Your task to perform on an android device: uninstall "WhatsApp Messenger" Image 0: 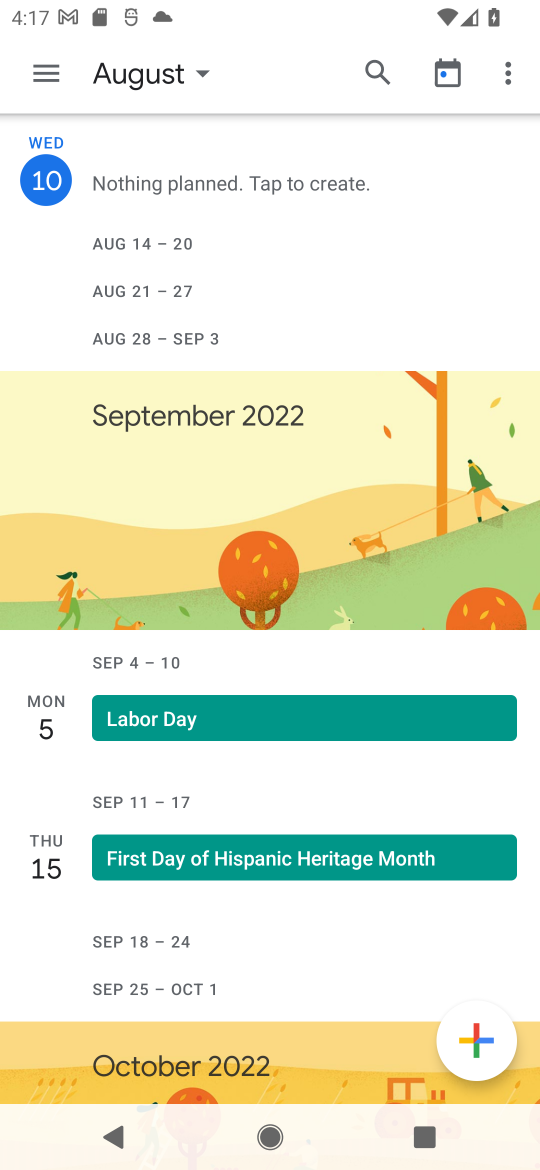
Step 0: press back button
Your task to perform on an android device: uninstall "WhatsApp Messenger" Image 1: 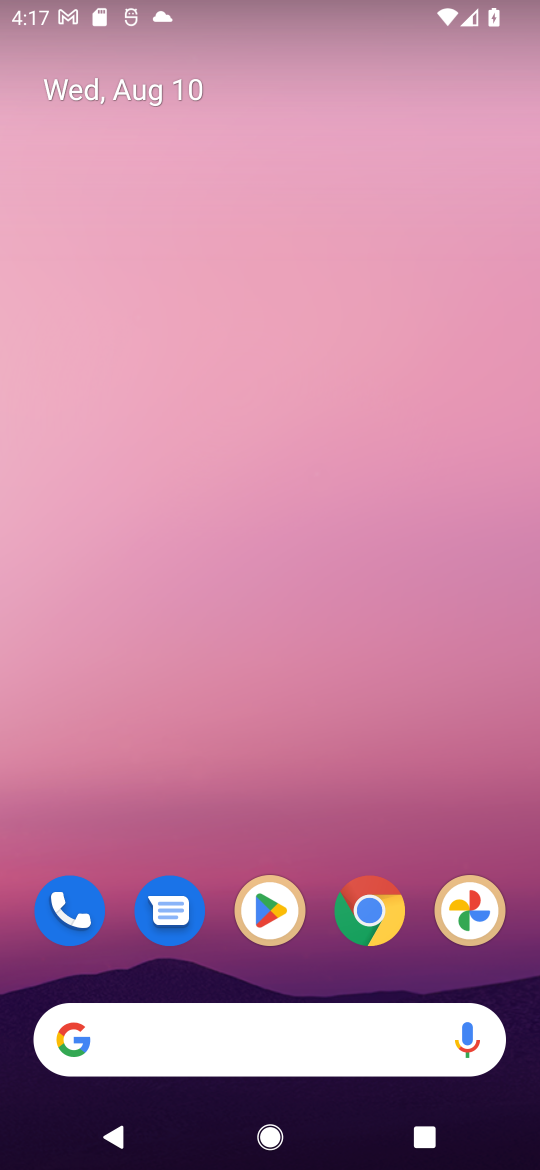
Step 1: click (253, 915)
Your task to perform on an android device: uninstall "WhatsApp Messenger" Image 2: 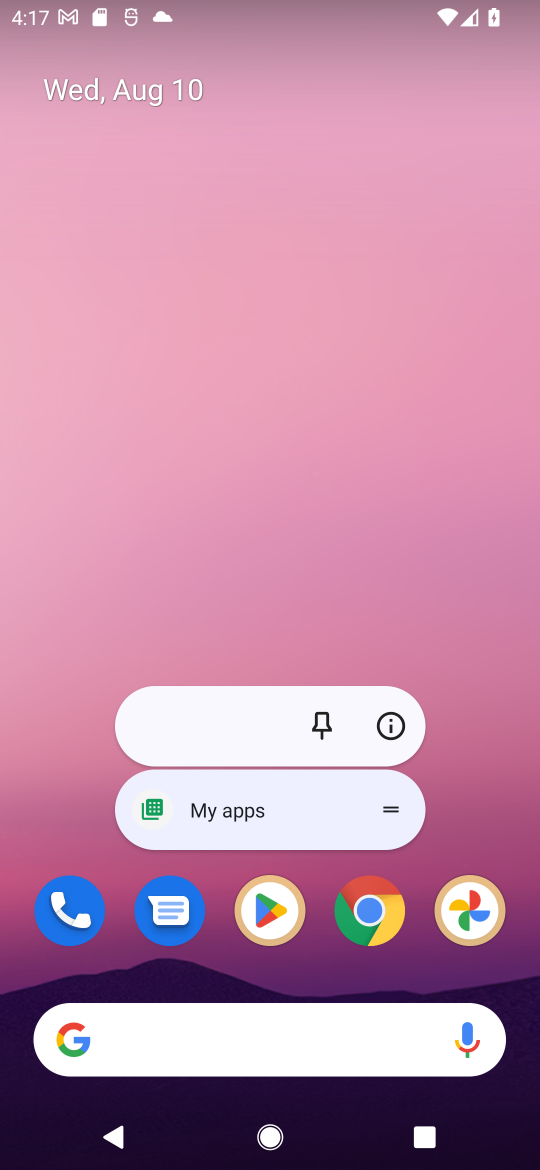
Step 2: click (284, 892)
Your task to perform on an android device: uninstall "WhatsApp Messenger" Image 3: 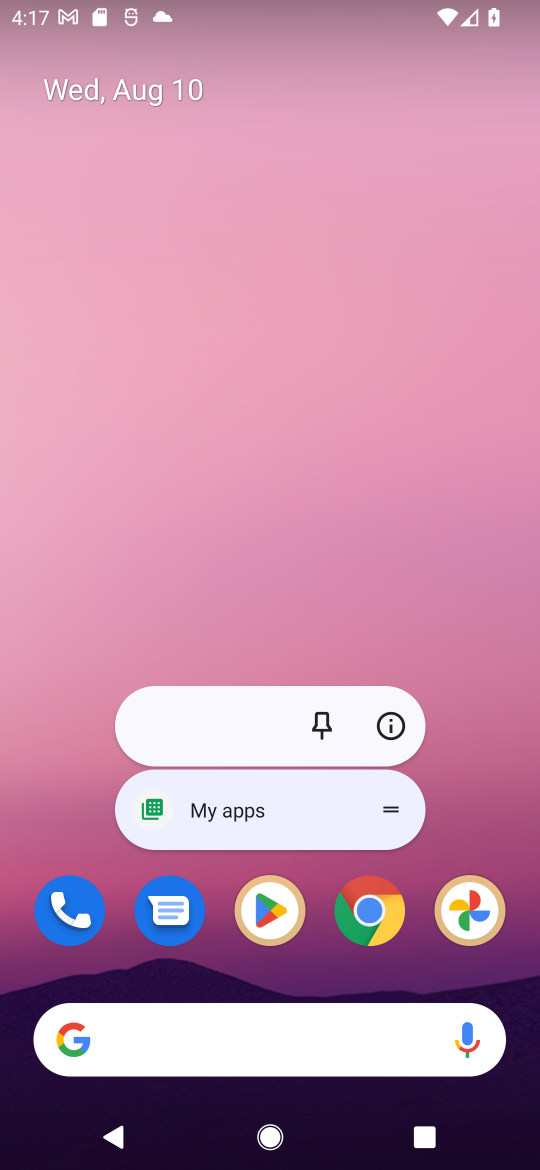
Step 3: click (278, 892)
Your task to perform on an android device: uninstall "WhatsApp Messenger" Image 4: 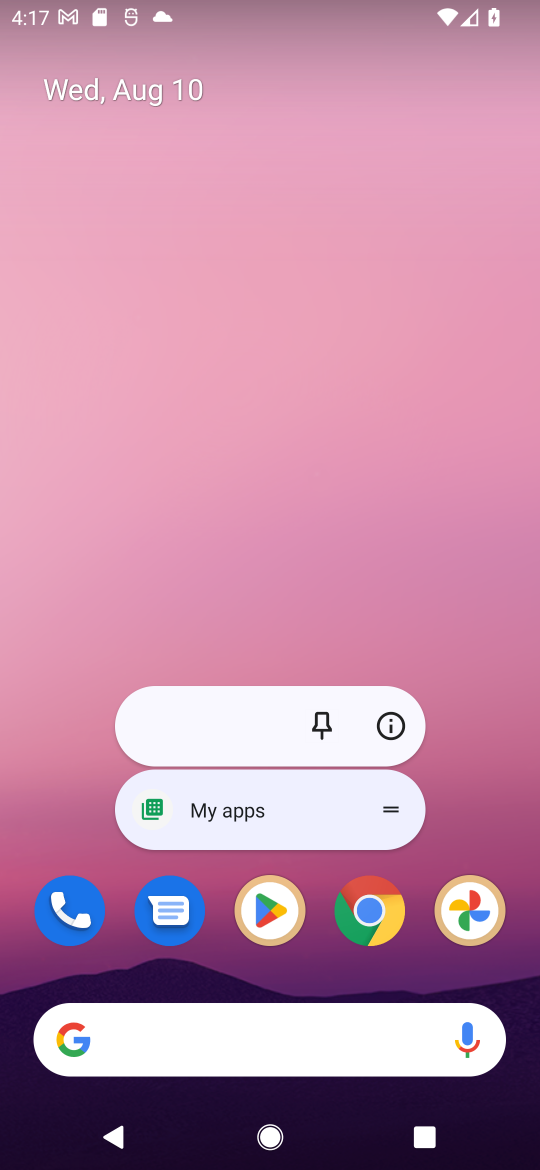
Step 4: click (277, 908)
Your task to perform on an android device: uninstall "WhatsApp Messenger" Image 5: 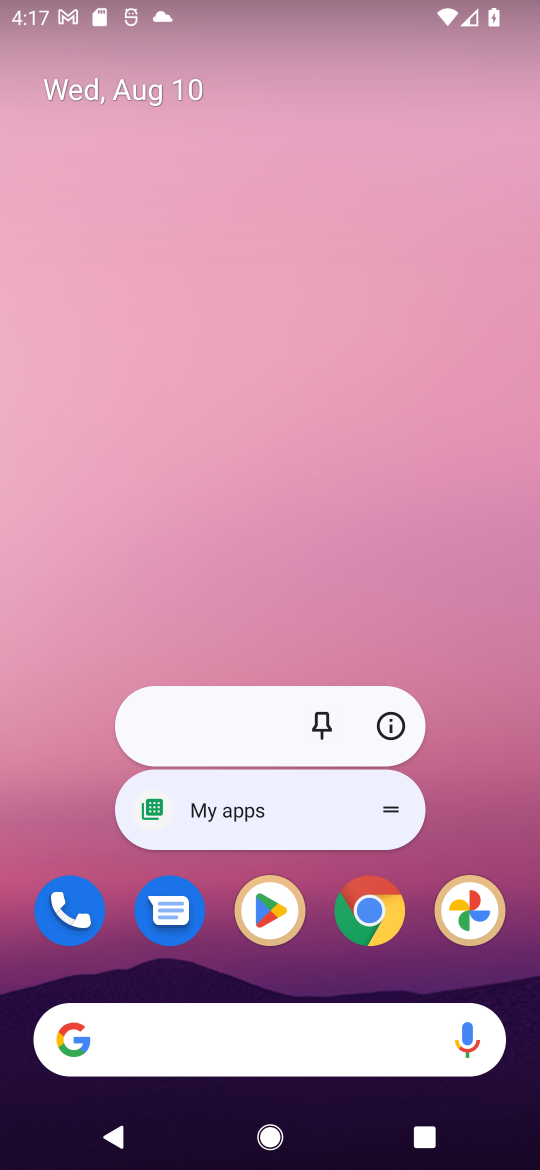
Step 5: click (274, 922)
Your task to perform on an android device: uninstall "WhatsApp Messenger" Image 6: 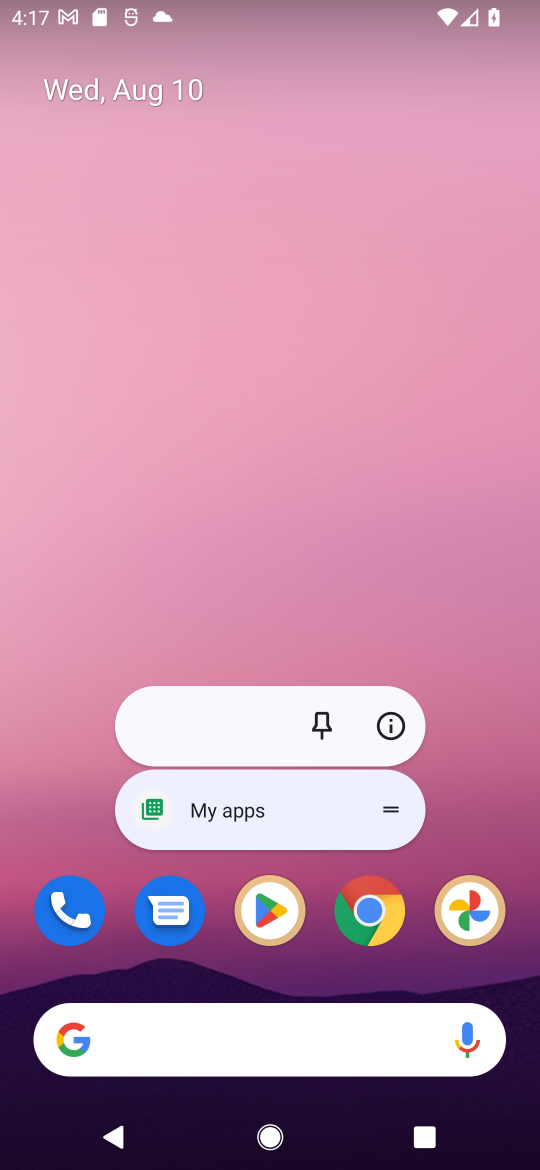
Step 6: click (274, 922)
Your task to perform on an android device: uninstall "WhatsApp Messenger" Image 7: 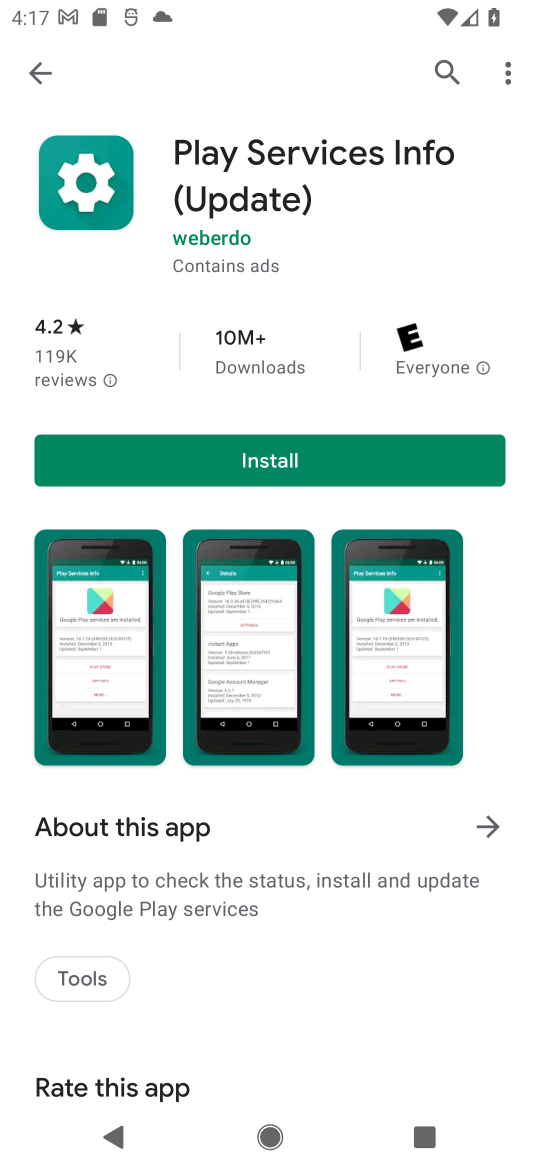
Step 7: click (466, 63)
Your task to perform on an android device: uninstall "WhatsApp Messenger" Image 8: 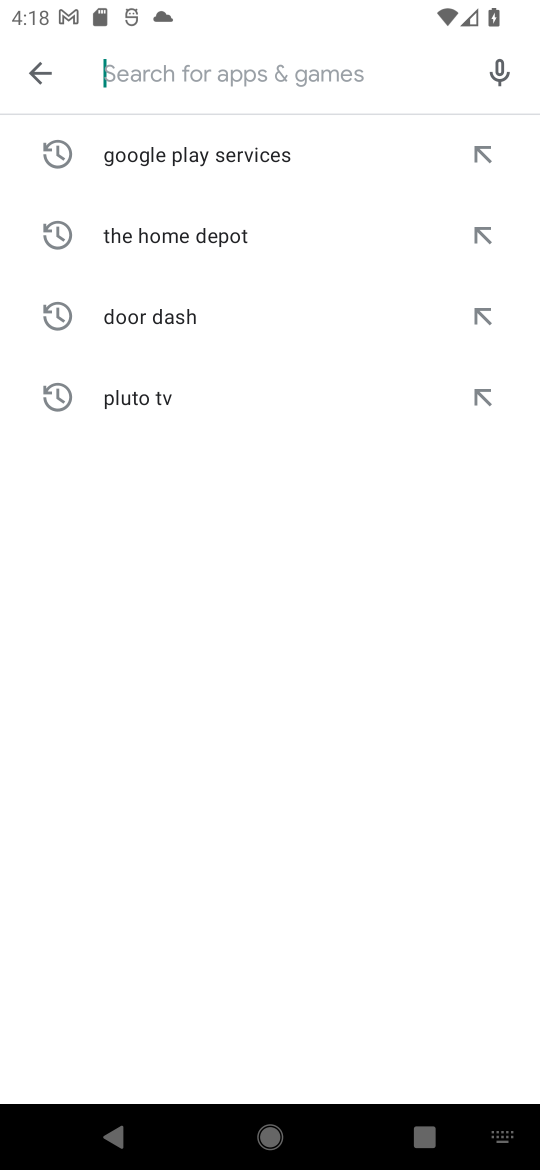
Step 8: click (280, 69)
Your task to perform on an android device: uninstall "WhatsApp Messenger" Image 9: 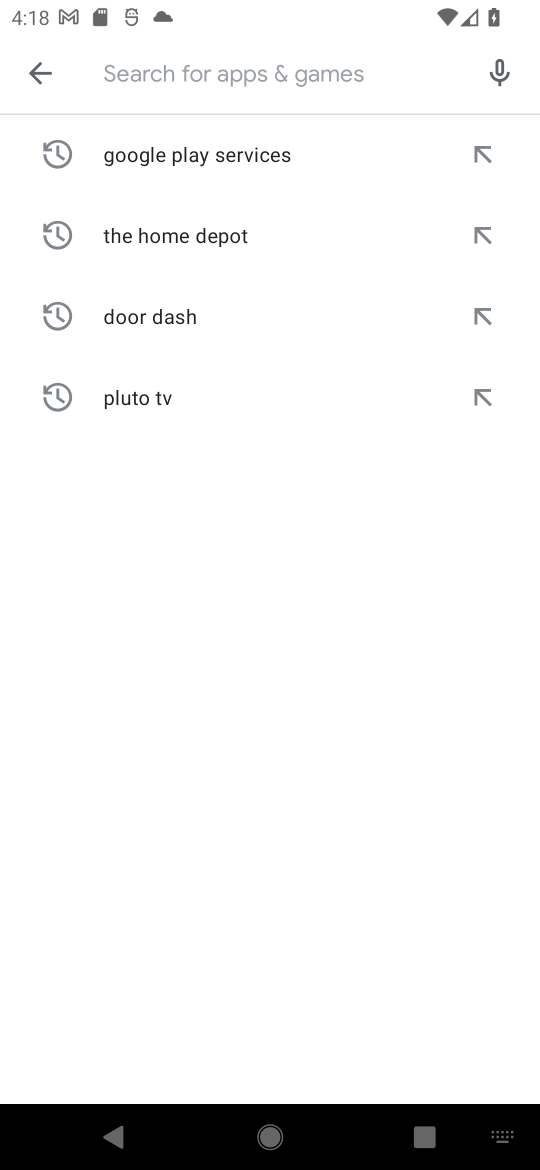
Step 9: type "whatsapp messenger"
Your task to perform on an android device: uninstall "WhatsApp Messenger" Image 10: 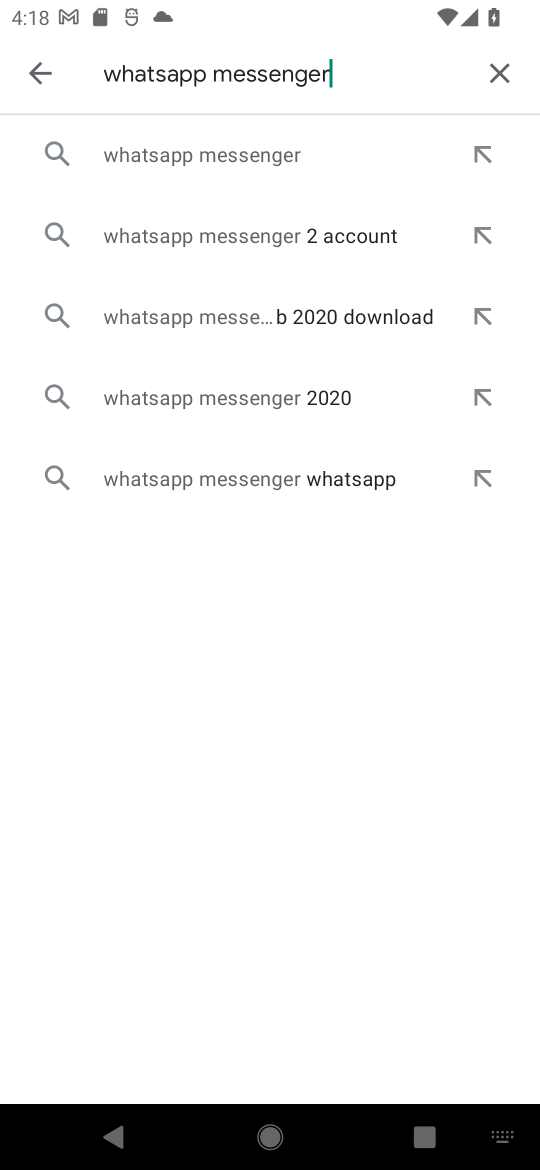
Step 10: click (130, 152)
Your task to perform on an android device: uninstall "WhatsApp Messenger" Image 11: 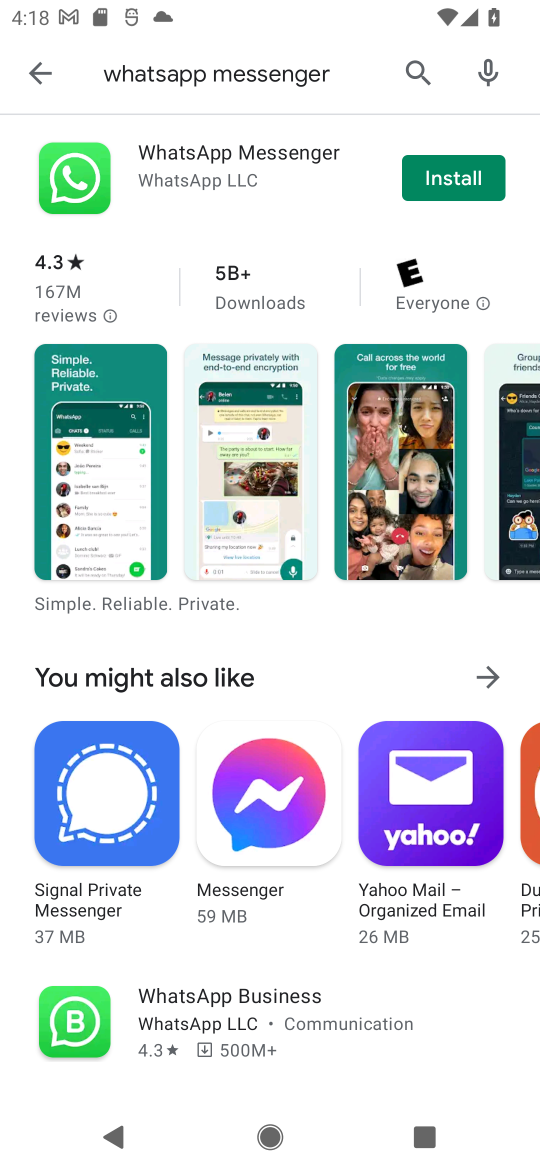
Step 11: task complete